Your task to perform on an android device: delete browsing data in the chrome app Image 0: 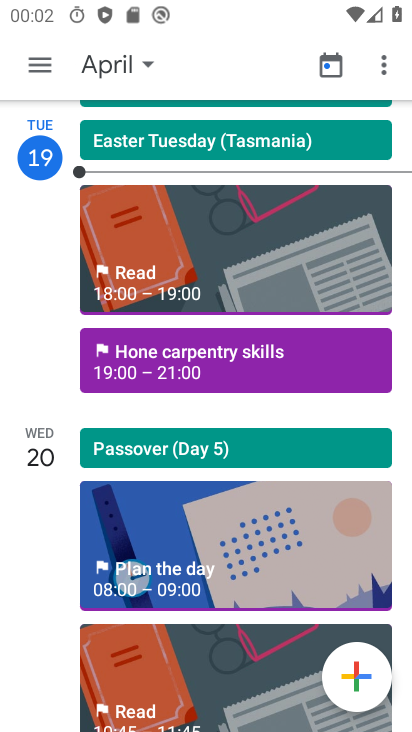
Step 0: press home button
Your task to perform on an android device: delete browsing data in the chrome app Image 1: 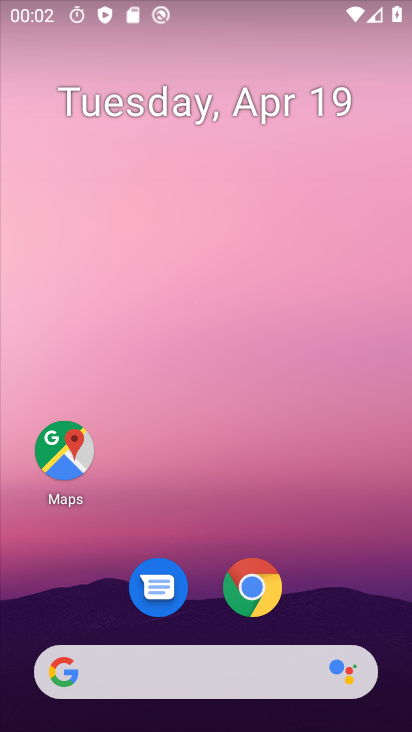
Step 1: click (247, 598)
Your task to perform on an android device: delete browsing data in the chrome app Image 2: 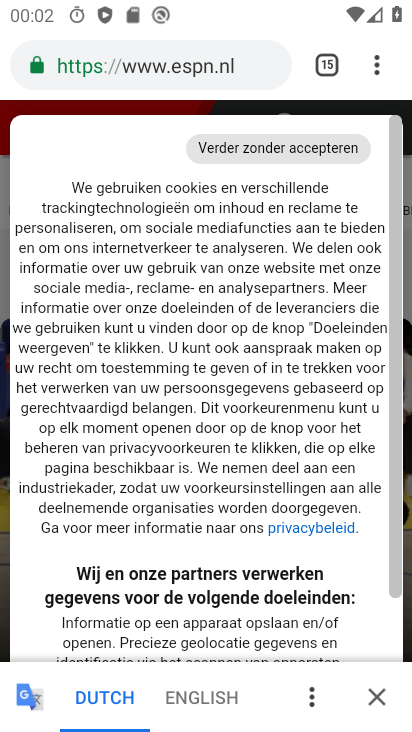
Step 2: click (323, 55)
Your task to perform on an android device: delete browsing data in the chrome app Image 3: 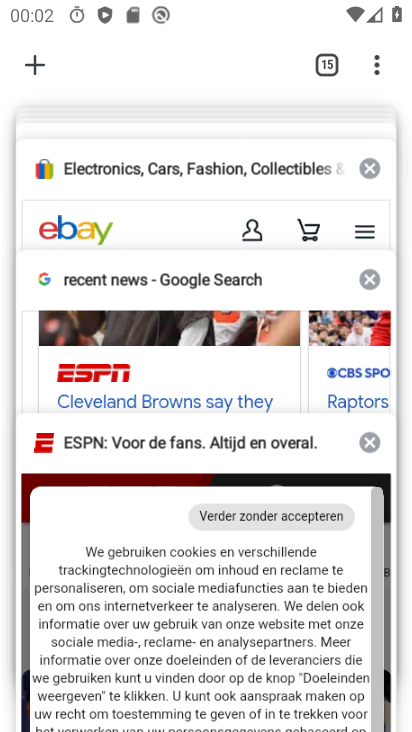
Step 3: click (42, 62)
Your task to perform on an android device: delete browsing data in the chrome app Image 4: 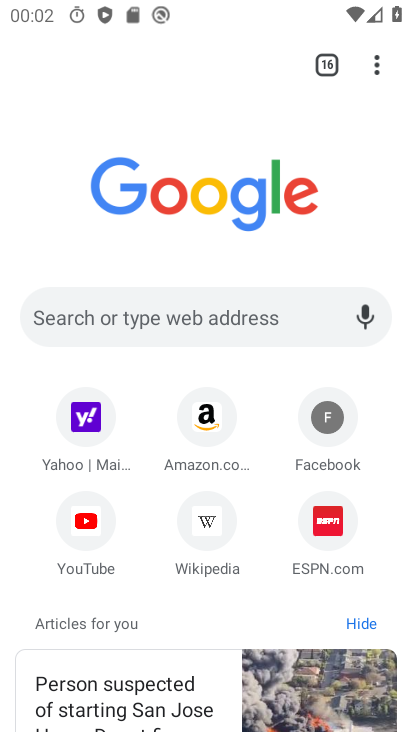
Step 4: click (374, 75)
Your task to perform on an android device: delete browsing data in the chrome app Image 5: 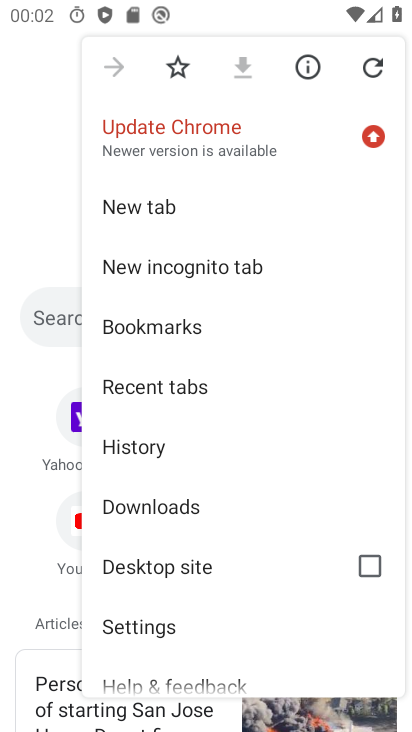
Step 5: drag from (221, 593) to (262, 320)
Your task to perform on an android device: delete browsing data in the chrome app Image 6: 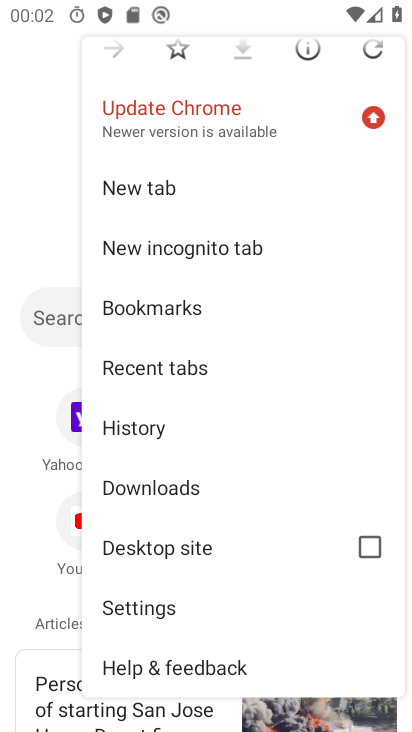
Step 6: click (168, 420)
Your task to perform on an android device: delete browsing data in the chrome app Image 7: 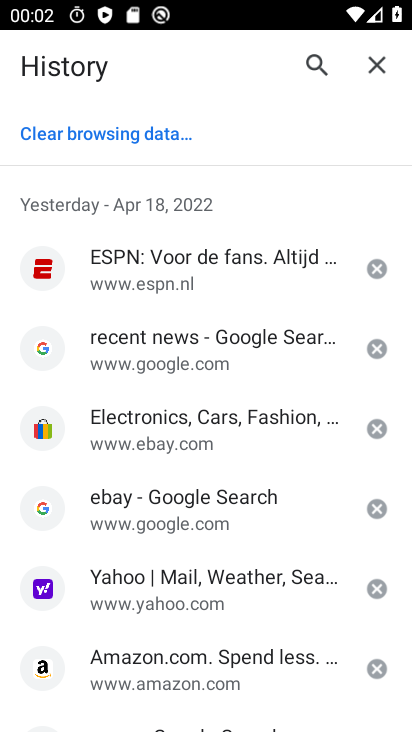
Step 7: click (121, 138)
Your task to perform on an android device: delete browsing data in the chrome app Image 8: 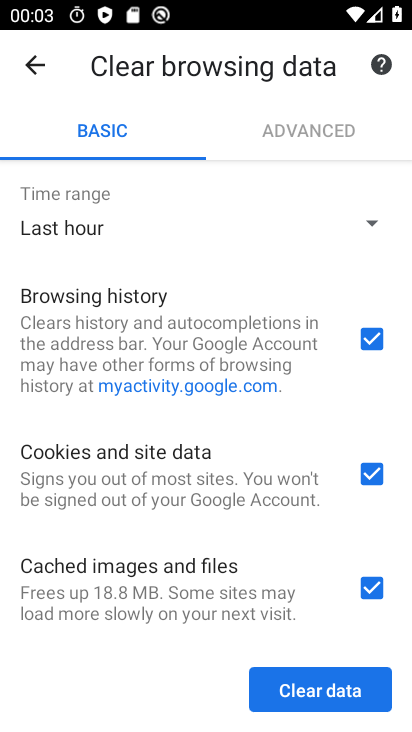
Step 8: click (296, 690)
Your task to perform on an android device: delete browsing data in the chrome app Image 9: 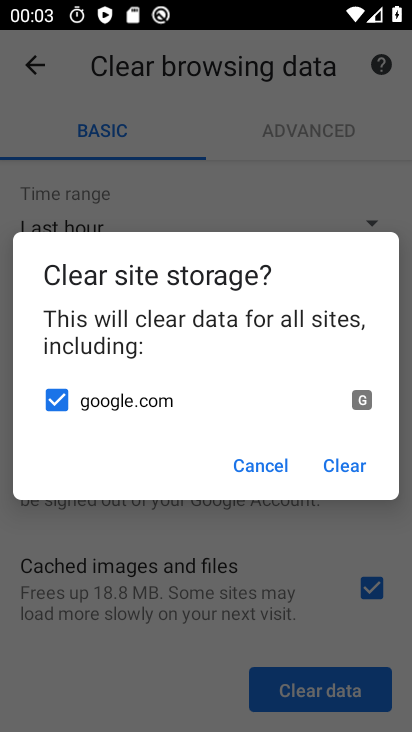
Step 9: click (346, 469)
Your task to perform on an android device: delete browsing data in the chrome app Image 10: 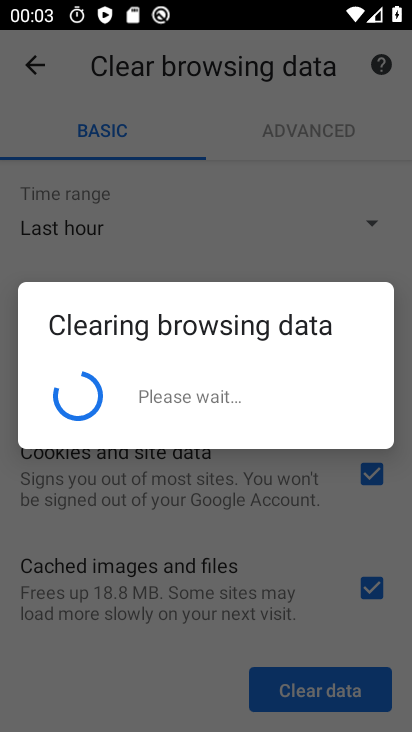
Step 10: task complete